Your task to perform on an android device: Open privacy settings Image 0: 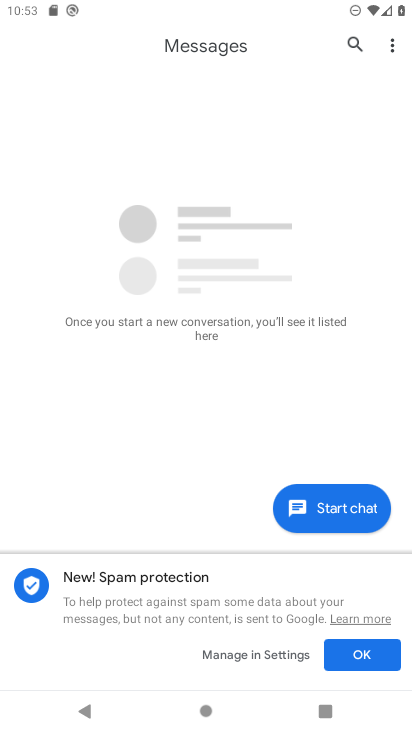
Step 0: press home button
Your task to perform on an android device: Open privacy settings Image 1: 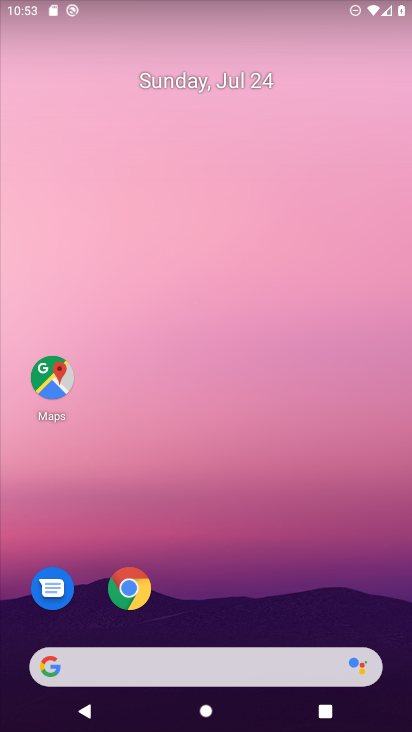
Step 1: drag from (152, 700) to (40, 628)
Your task to perform on an android device: Open privacy settings Image 2: 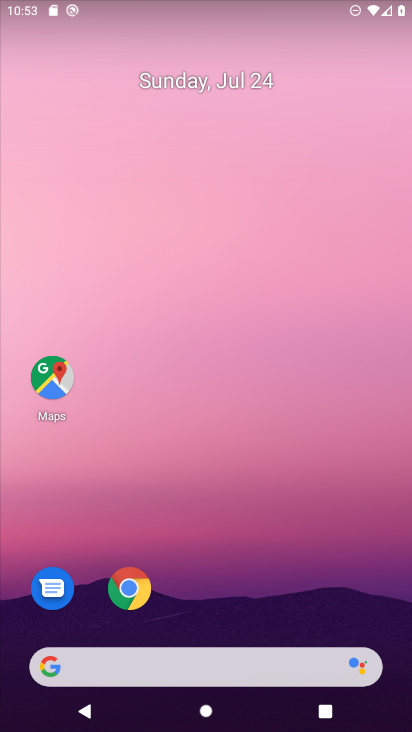
Step 2: drag from (150, 713) to (282, 3)
Your task to perform on an android device: Open privacy settings Image 3: 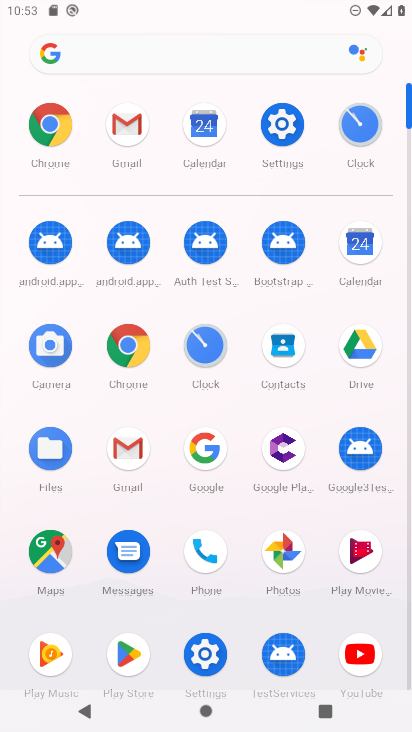
Step 3: click (272, 131)
Your task to perform on an android device: Open privacy settings Image 4: 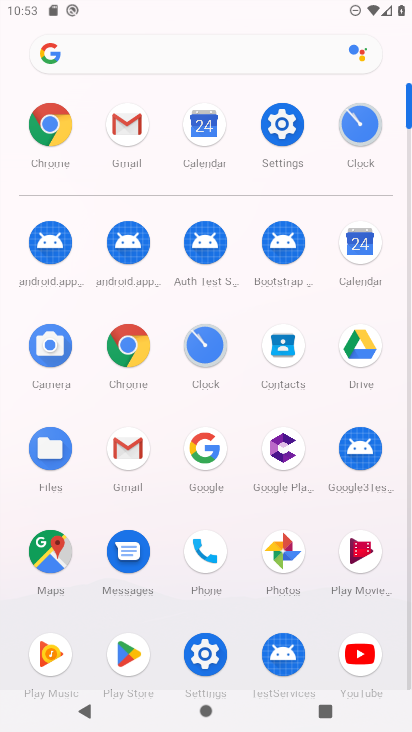
Step 4: click (272, 131)
Your task to perform on an android device: Open privacy settings Image 5: 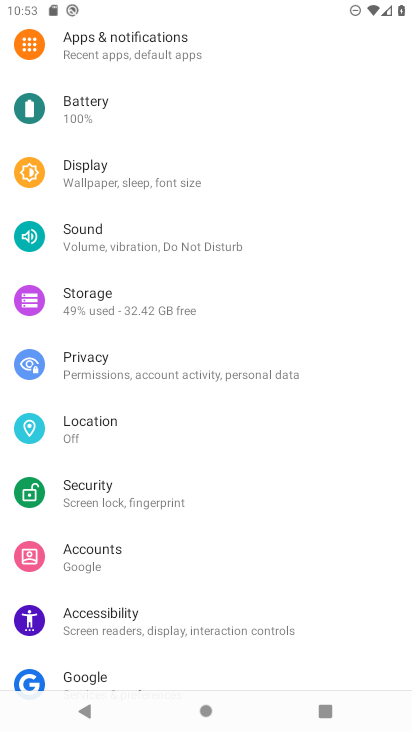
Step 5: click (113, 364)
Your task to perform on an android device: Open privacy settings Image 6: 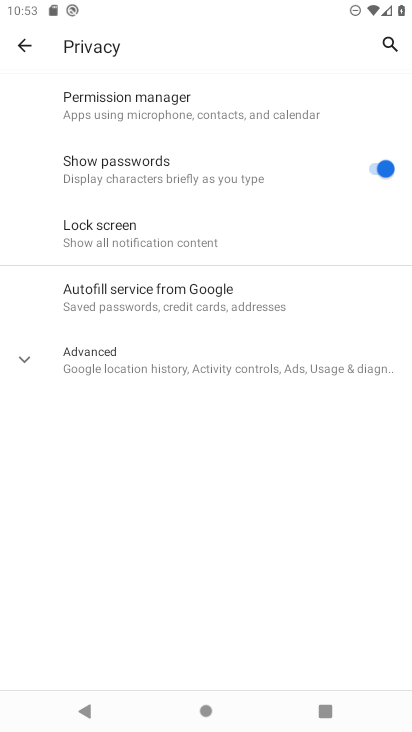
Step 6: task complete